Your task to perform on an android device: Open sound settings Image 0: 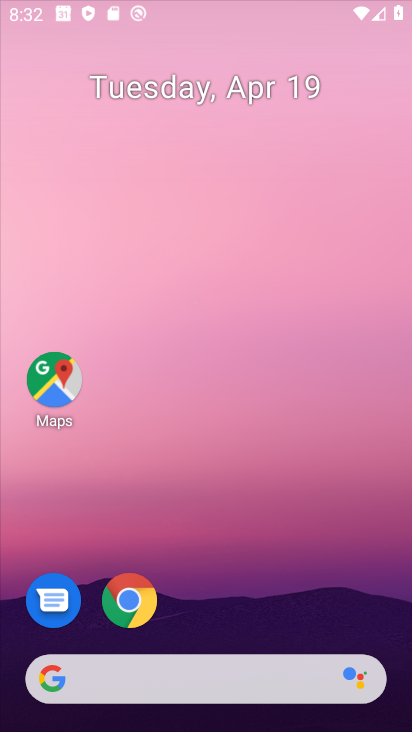
Step 0: drag from (206, 609) to (289, 74)
Your task to perform on an android device: Open sound settings Image 1: 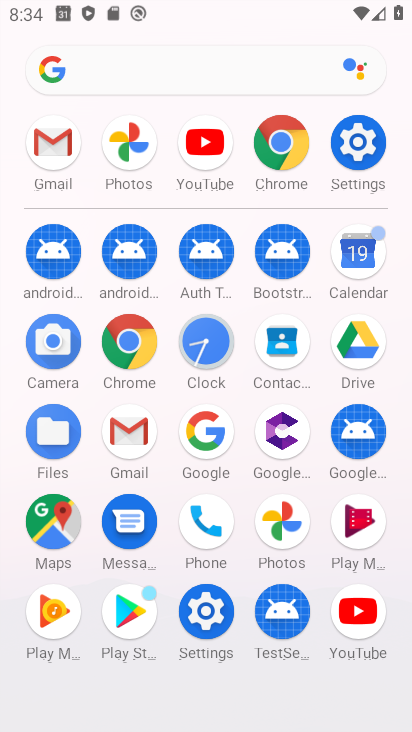
Step 1: click (357, 133)
Your task to perform on an android device: Open sound settings Image 2: 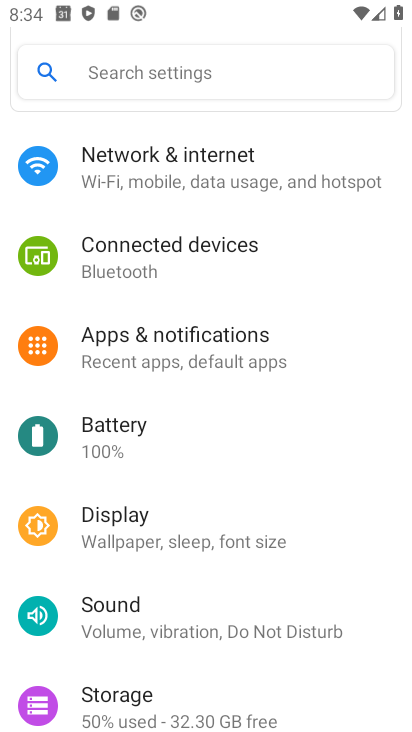
Step 2: click (165, 618)
Your task to perform on an android device: Open sound settings Image 3: 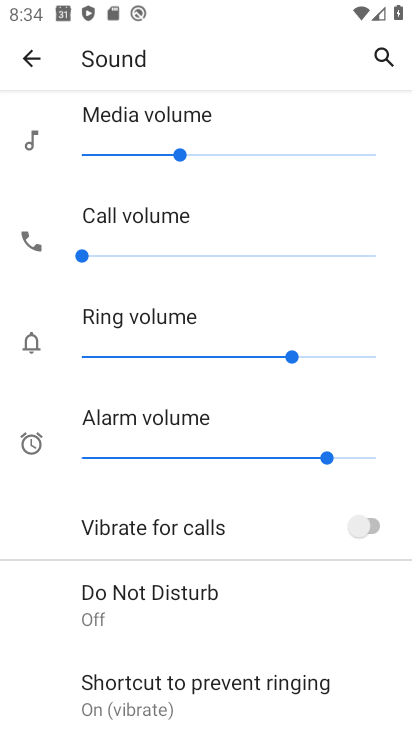
Step 3: task complete